Your task to perform on an android device: check battery use Image 0: 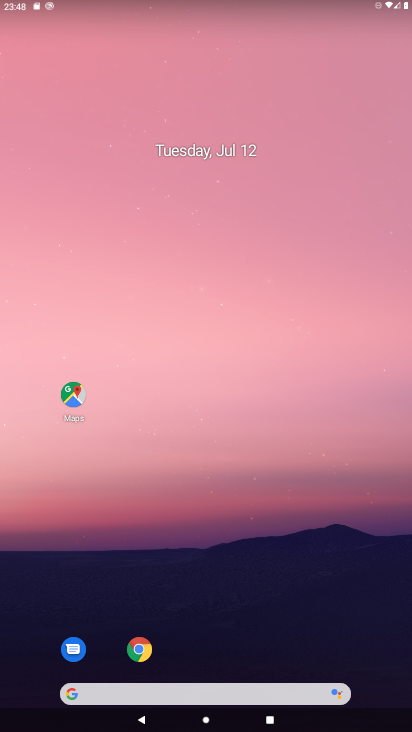
Step 0: drag from (385, 682) to (301, 207)
Your task to perform on an android device: check battery use Image 1: 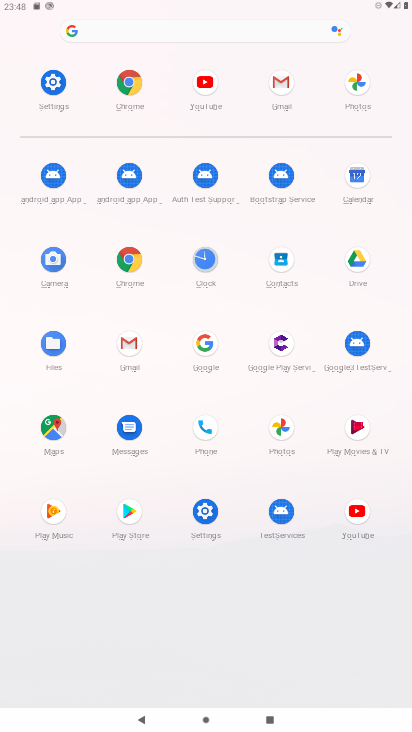
Step 1: click (205, 510)
Your task to perform on an android device: check battery use Image 2: 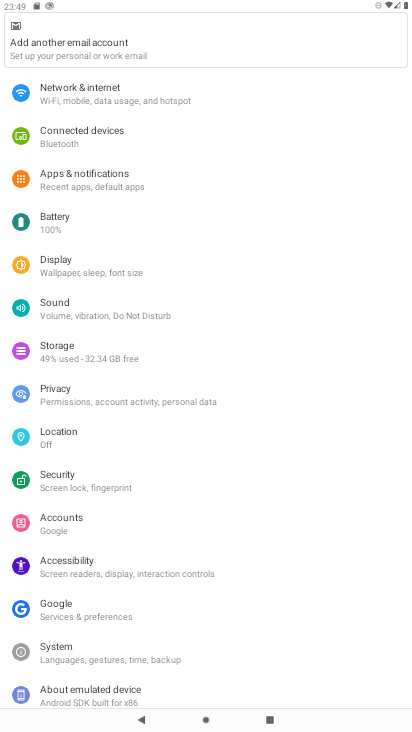
Step 2: click (64, 215)
Your task to perform on an android device: check battery use Image 3: 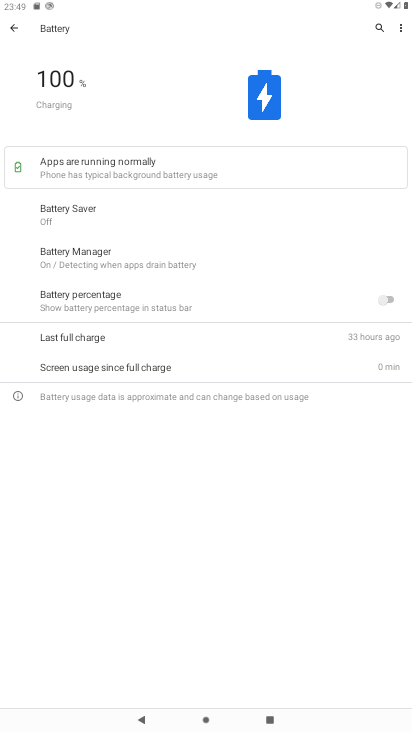
Step 3: click (398, 30)
Your task to perform on an android device: check battery use Image 4: 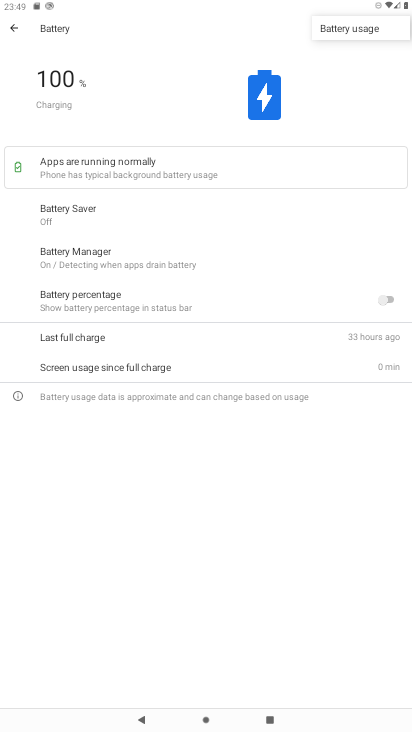
Step 4: click (349, 27)
Your task to perform on an android device: check battery use Image 5: 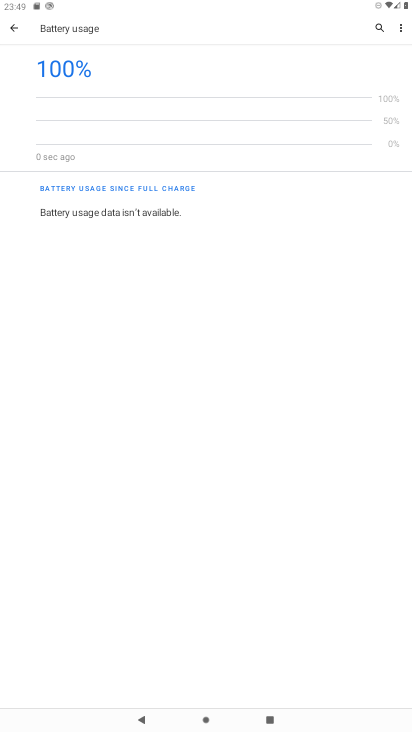
Step 5: task complete